Your task to perform on an android device: set an alarm Image 0: 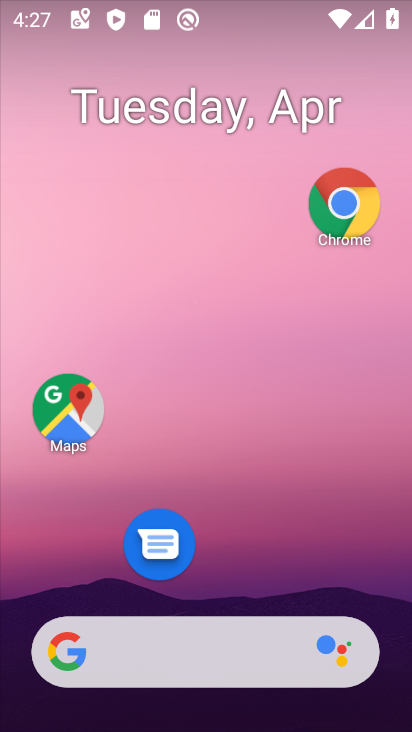
Step 0: drag from (234, 588) to (356, 4)
Your task to perform on an android device: set an alarm Image 1: 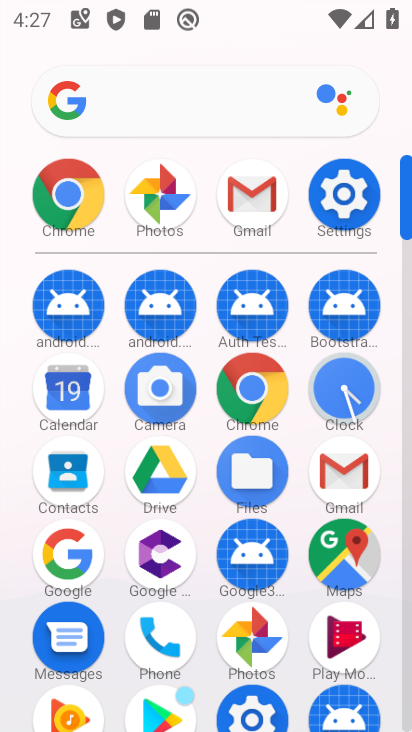
Step 1: click (340, 386)
Your task to perform on an android device: set an alarm Image 2: 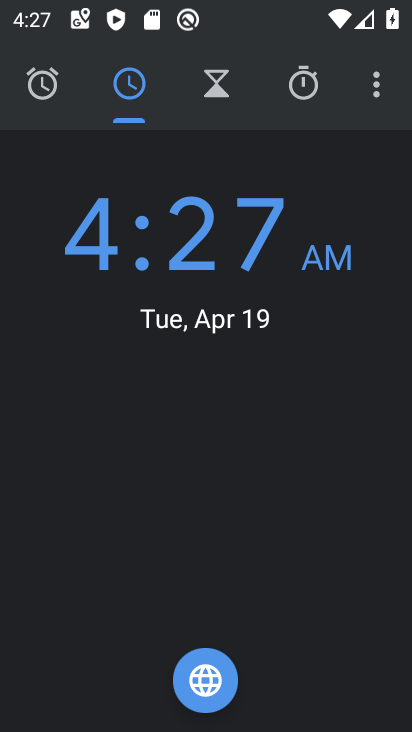
Step 2: click (45, 100)
Your task to perform on an android device: set an alarm Image 3: 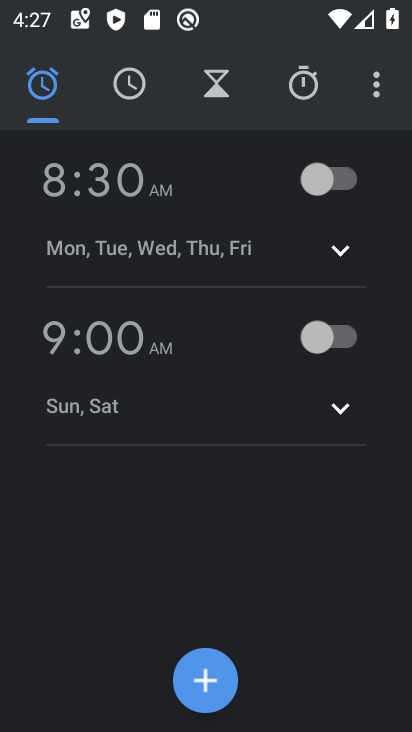
Step 3: click (336, 179)
Your task to perform on an android device: set an alarm Image 4: 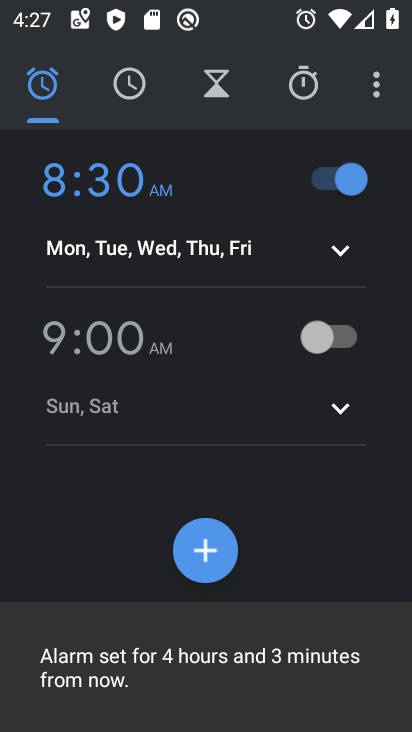
Step 4: task complete